Your task to perform on an android device: Turn off the flashlight Image 0: 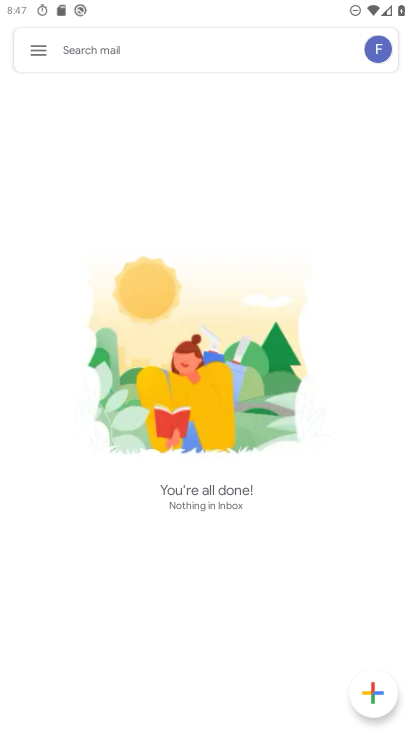
Step 0: press home button
Your task to perform on an android device: Turn off the flashlight Image 1: 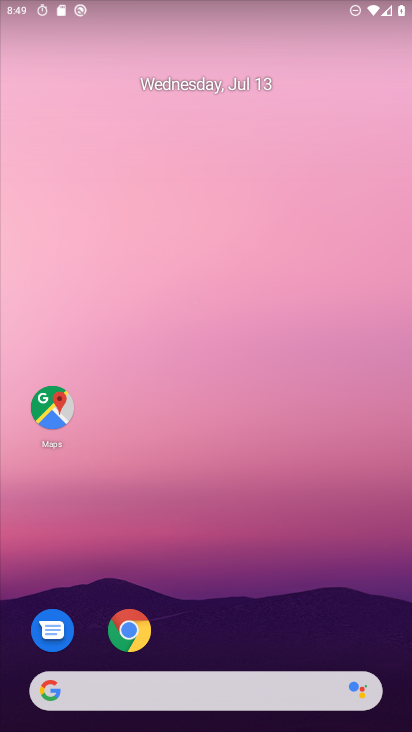
Step 1: drag from (364, 586) to (189, 0)
Your task to perform on an android device: Turn off the flashlight Image 2: 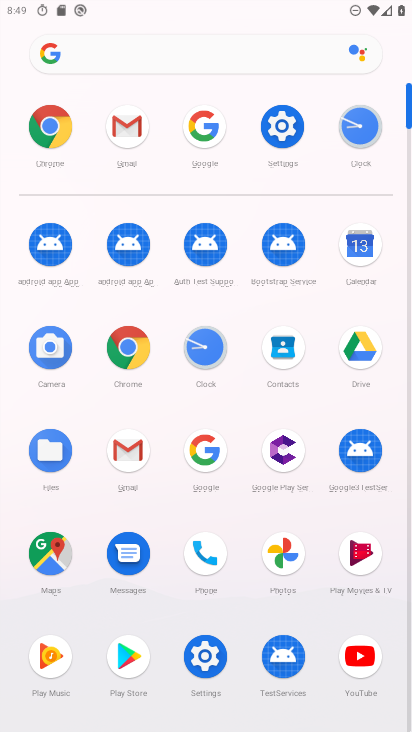
Step 2: click (284, 134)
Your task to perform on an android device: Turn off the flashlight Image 3: 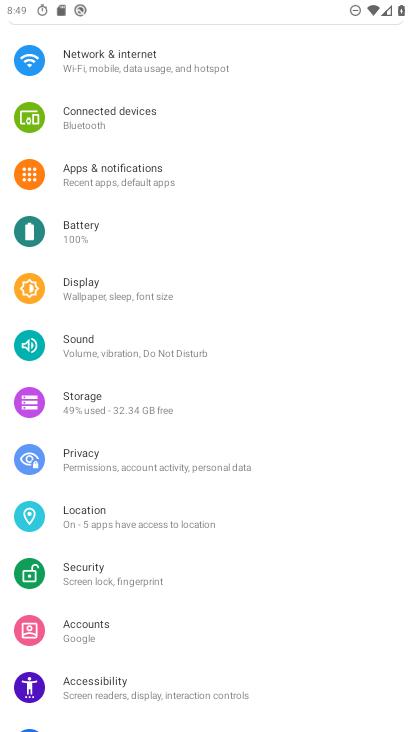
Step 3: task complete